Your task to perform on an android device: snooze an email in the gmail app Image 0: 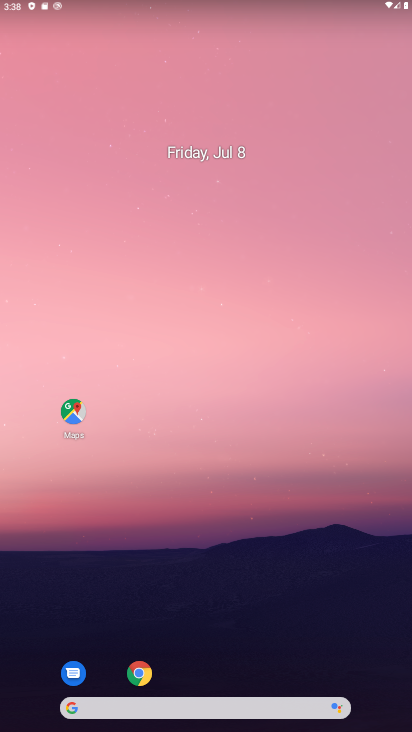
Step 0: drag from (258, 675) to (261, 38)
Your task to perform on an android device: snooze an email in the gmail app Image 1: 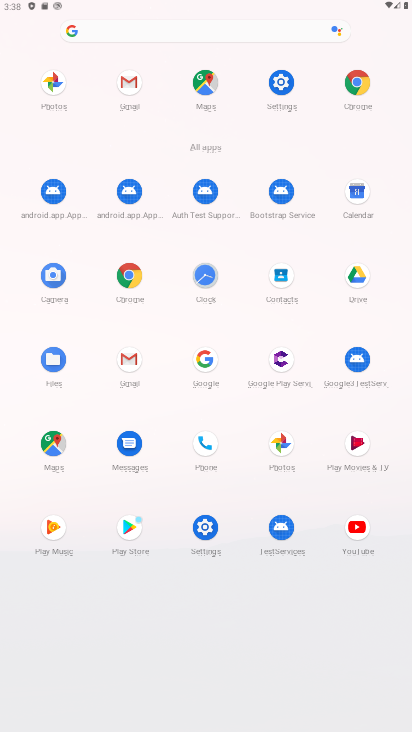
Step 1: click (116, 363)
Your task to perform on an android device: snooze an email in the gmail app Image 2: 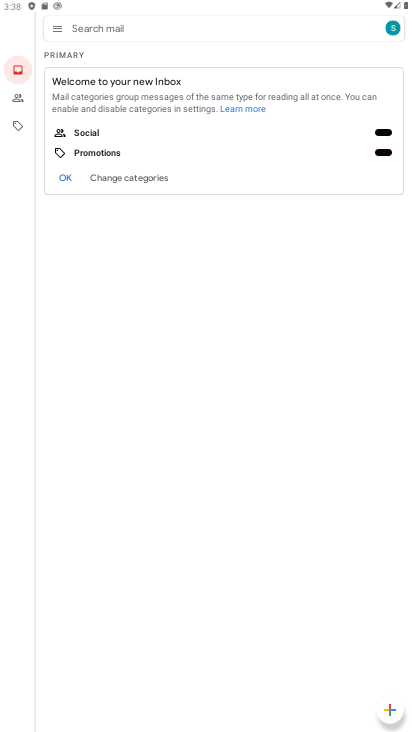
Step 2: click (54, 27)
Your task to perform on an android device: snooze an email in the gmail app Image 3: 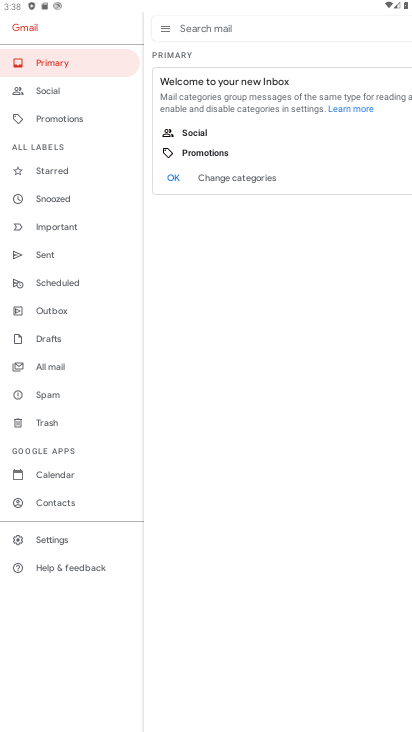
Step 3: click (50, 363)
Your task to perform on an android device: snooze an email in the gmail app Image 4: 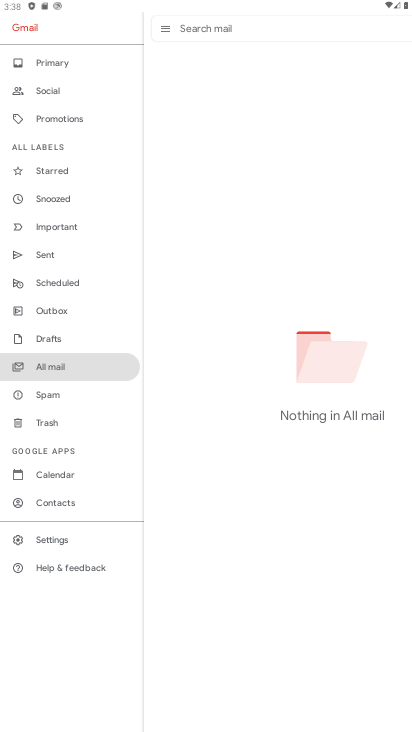
Step 4: task complete